Your task to perform on an android device: snooze an email in the gmail app Image 0: 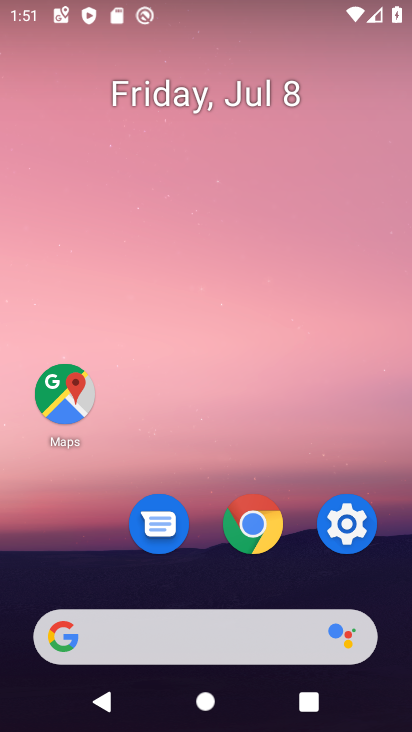
Step 0: drag from (243, 662) to (318, 129)
Your task to perform on an android device: snooze an email in the gmail app Image 1: 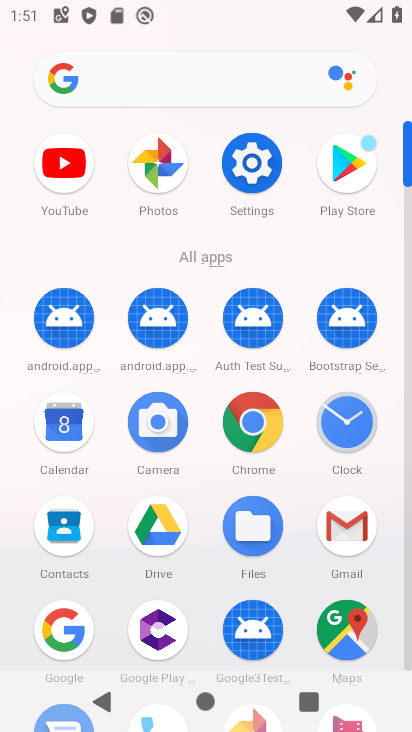
Step 1: click (345, 532)
Your task to perform on an android device: snooze an email in the gmail app Image 2: 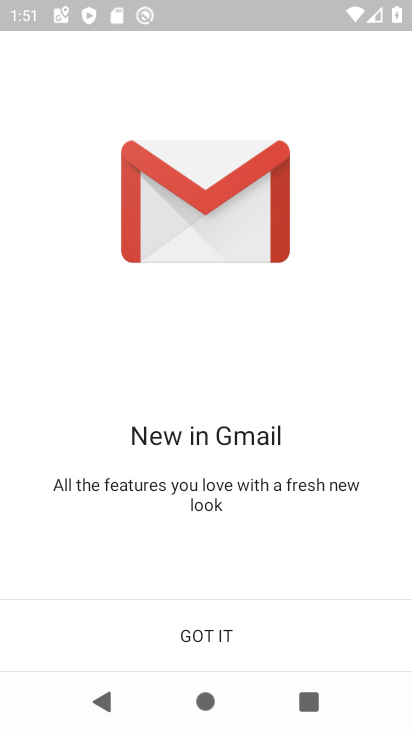
Step 2: click (195, 642)
Your task to perform on an android device: snooze an email in the gmail app Image 3: 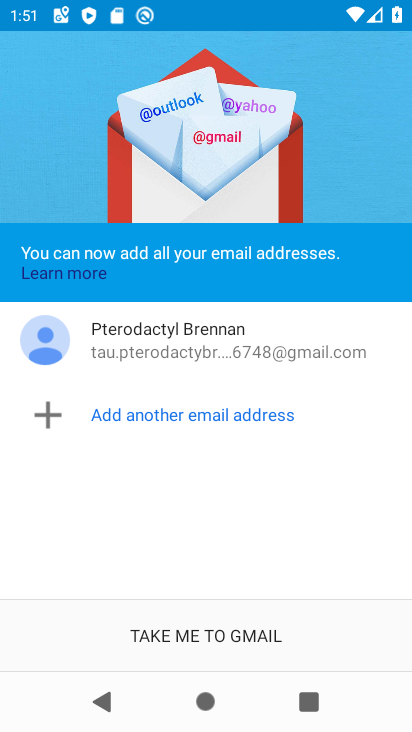
Step 3: click (192, 636)
Your task to perform on an android device: snooze an email in the gmail app Image 4: 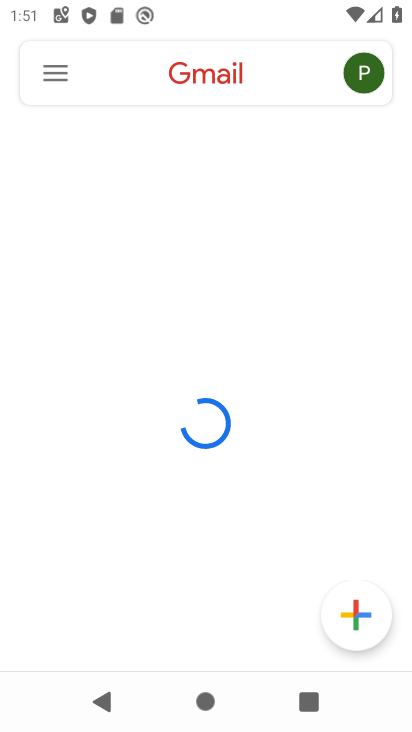
Step 4: click (40, 87)
Your task to perform on an android device: snooze an email in the gmail app Image 5: 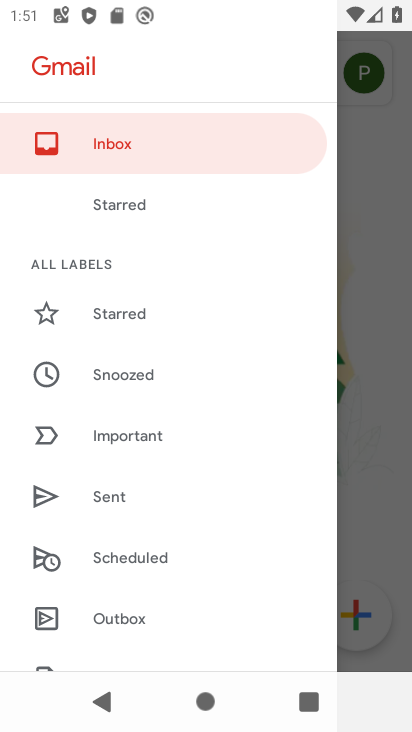
Step 5: click (85, 375)
Your task to perform on an android device: snooze an email in the gmail app Image 6: 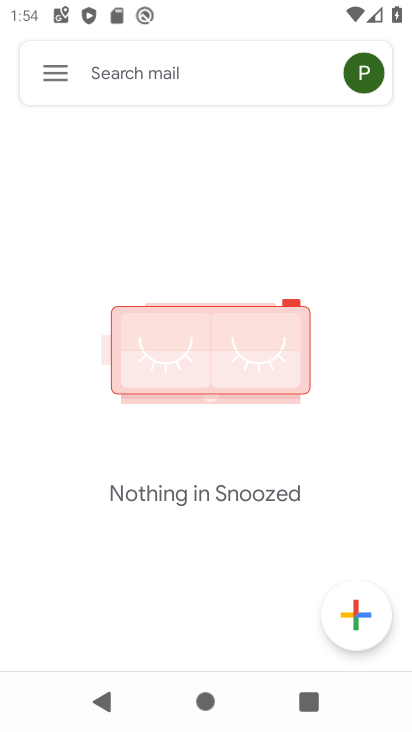
Step 6: task complete